Your task to perform on an android device: turn off improve location accuracy Image 0: 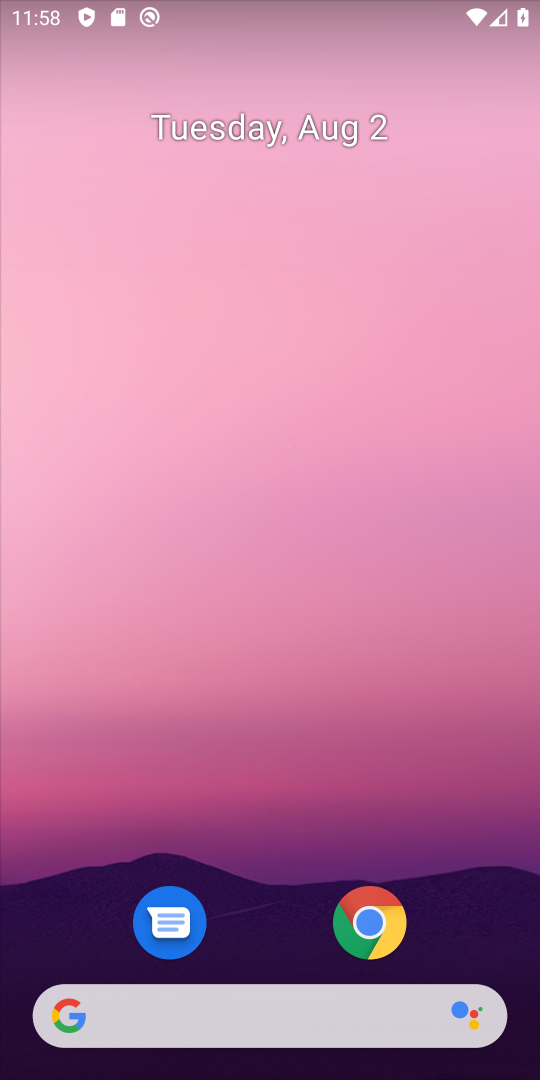
Step 0: drag from (464, 914) to (310, 34)
Your task to perform on an android device: turn off improve location accuracy Image 1: 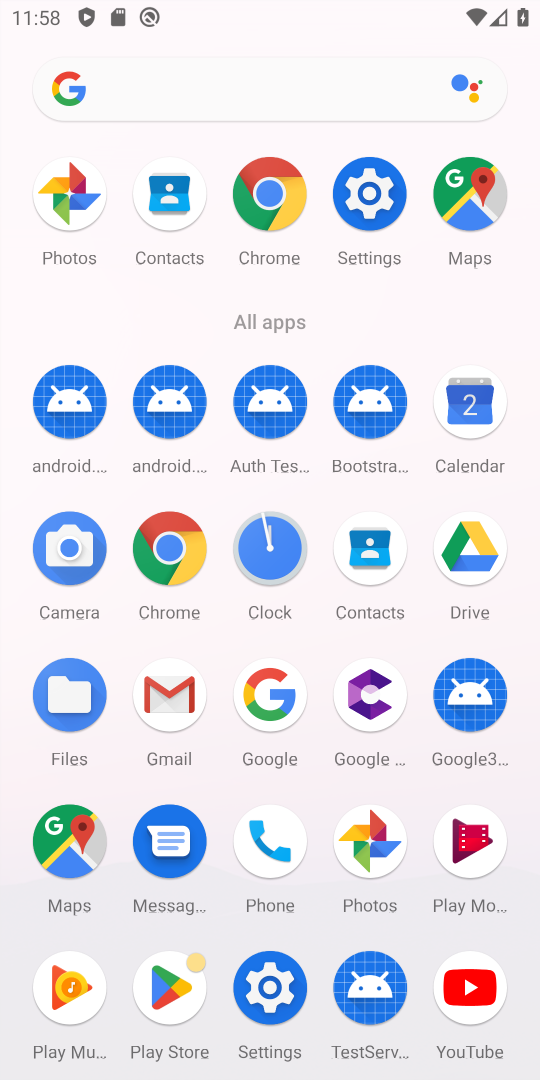
Step 1: click (377, 201)
Your task to perform on an android device: turn off improve location accuracy Image 2: 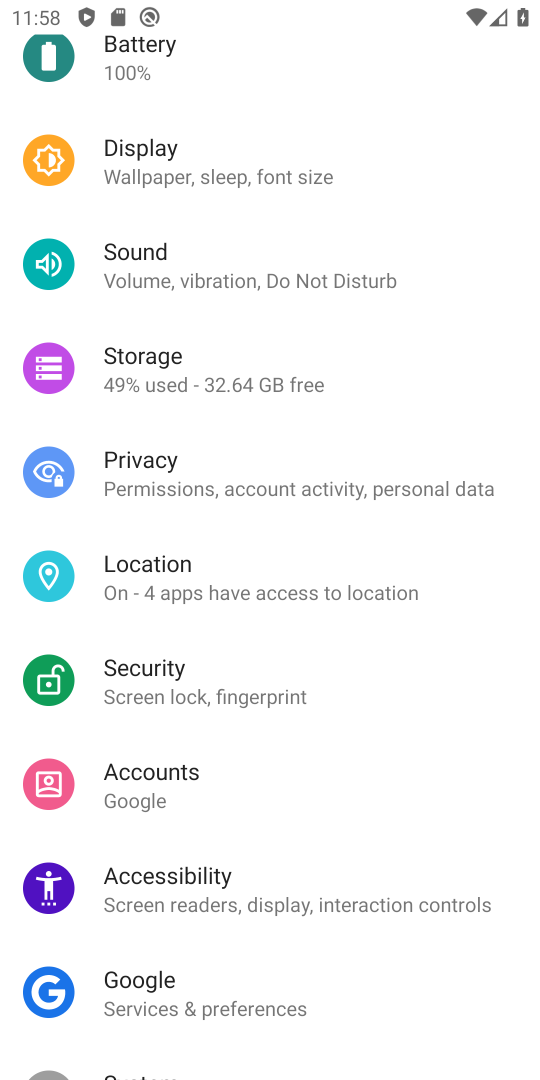
Step 2: click (237, 577)
Your task to perform on an android device: turn off improve location accuracy Image 3: 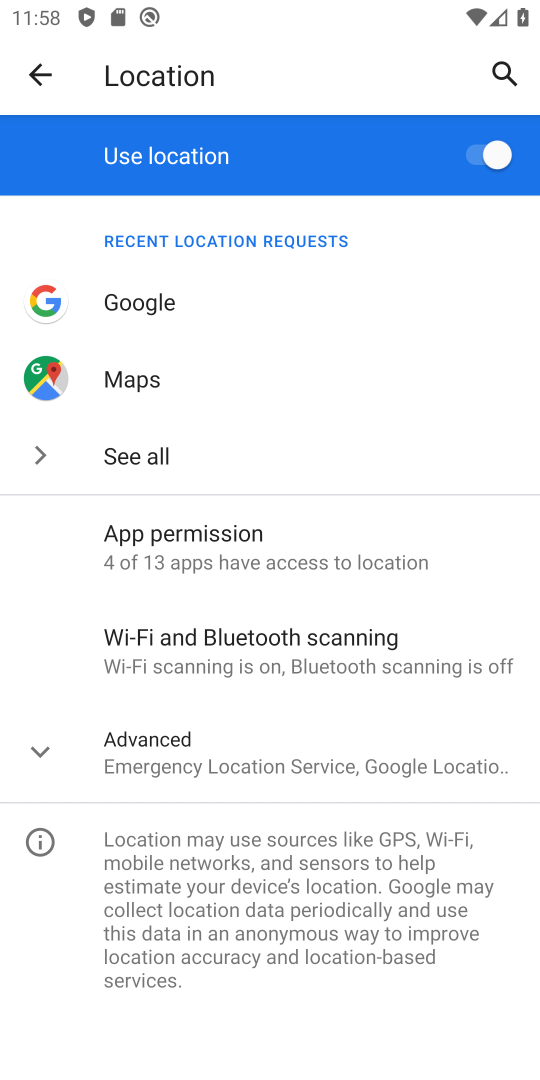
Step 3: click (283, 751)
Your task to perform on an android device: turn off improve location accuracy Image 4: 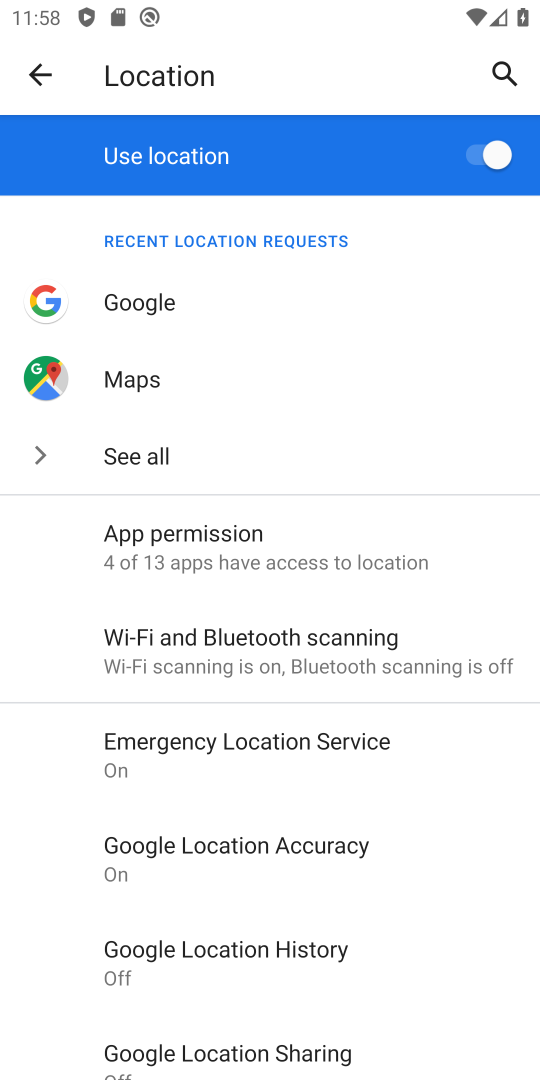
Step 4: click (330, 841)
Your task to perform on an android device: turn off improve location accuracy Image 5: 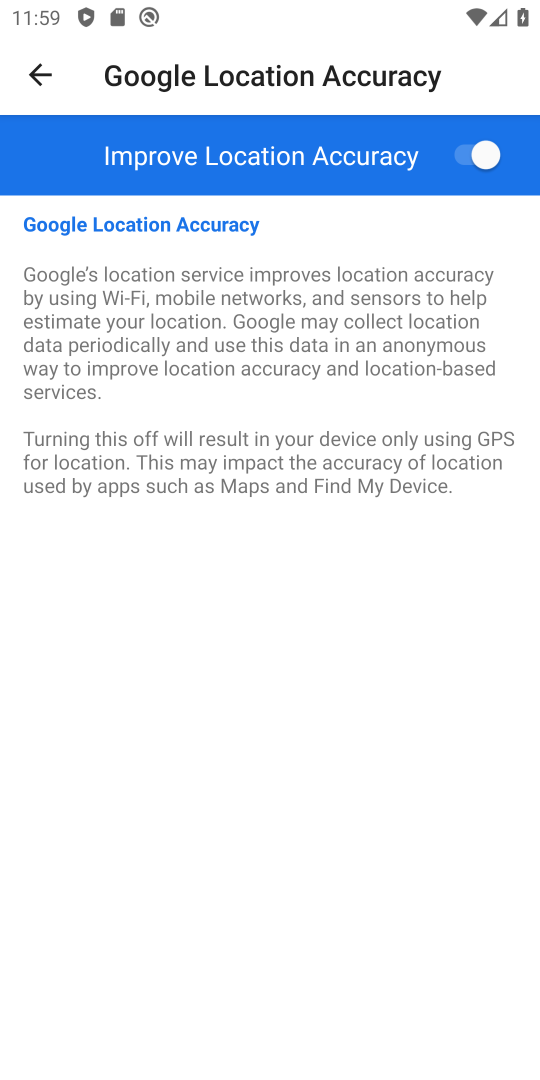
Step 5: click (463, 172)
Your task to perform on an android device: turn off improve location accuracy Image 6: 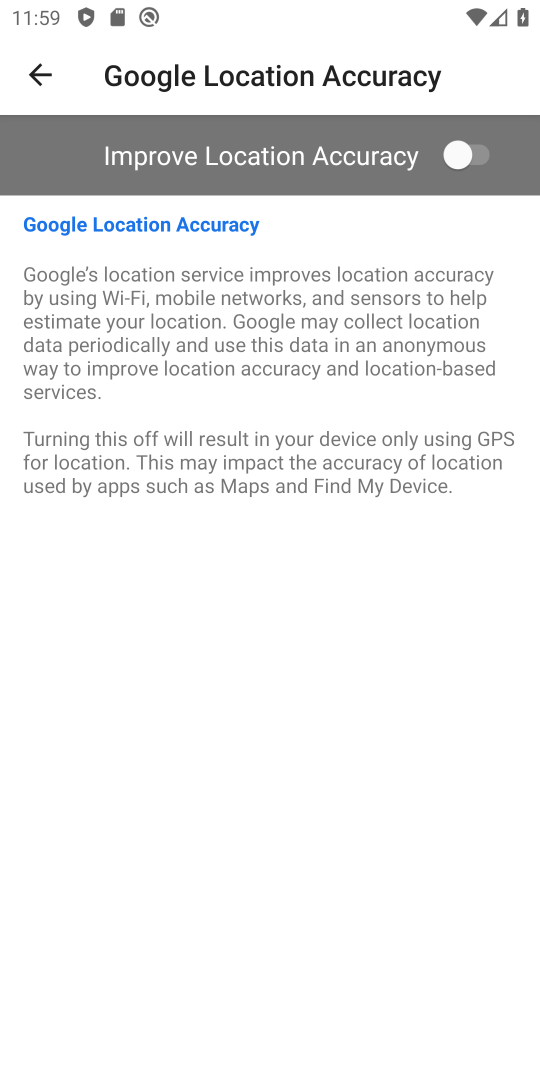
Step 6: task complete